Your task to perform on an android device: What's the weather going to be this weekend? Image 0: 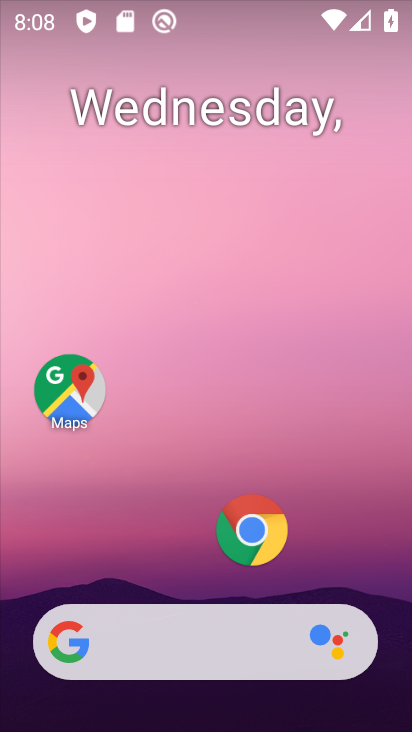
Step 0: click (173, 641)
Your task to perform on an android device: What's the weather going to be this weekend? Image 1: 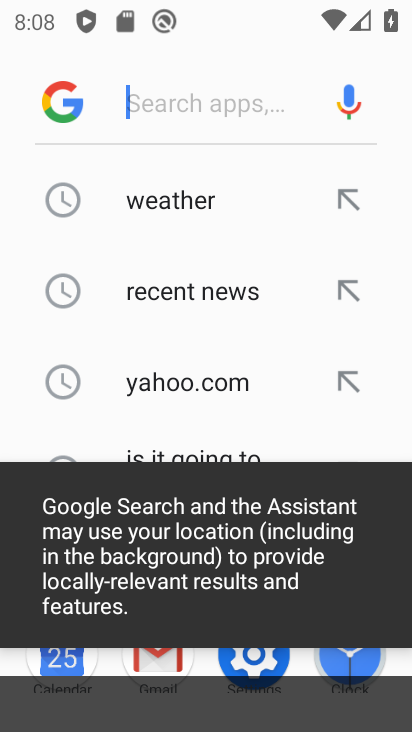
Step 1: click (157, 192)
Your task to perform on an android device: What's the weather going to be this weekend? Image 2: 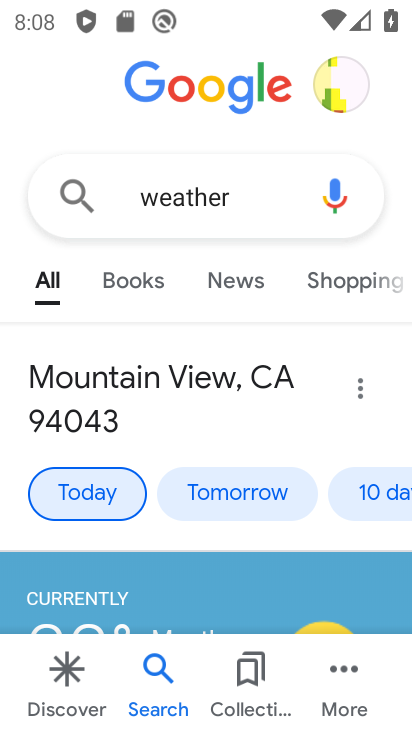
Step 2: click (359, 480)
Your task to perform on an android device: What's the weather going to be this weekend? Image 3: 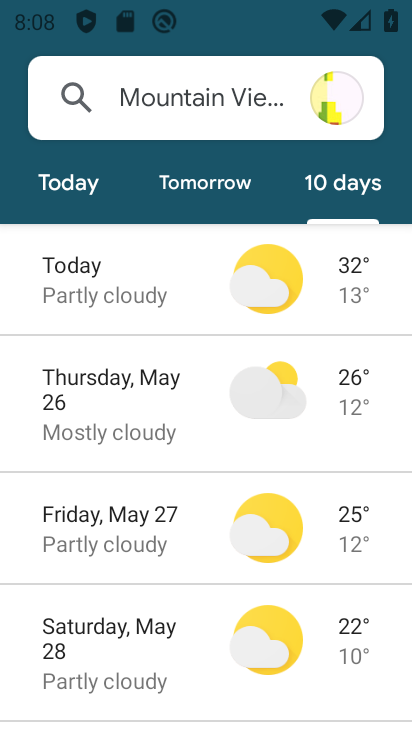
Step 3: task complete